Your task to perform on an android device: open app "Booking.com: Hotels and more" Image 0: 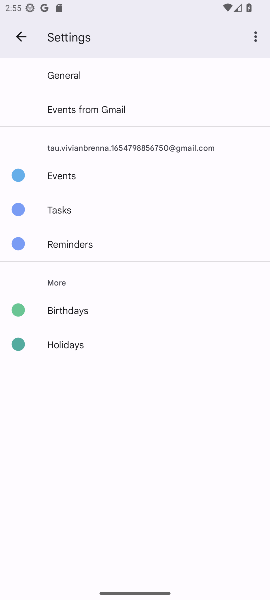
Step 0: press home button
Your task to perform on an android device: open app "Booking.com: Hotels and more" Image 1: 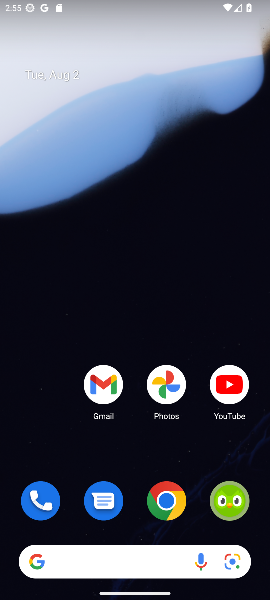
Step 1: drag from (129, 420) to (163, 0)
Your task to perform on an android device: open app "Booking.com: Hotels and more" Image 2: 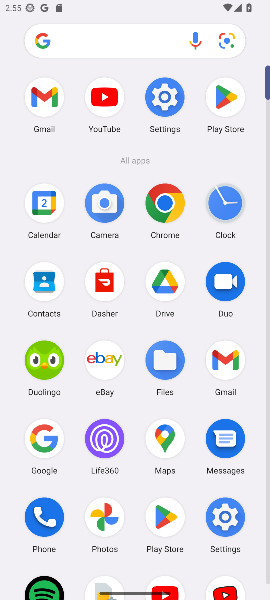
Step 2: click (219, 103)
Your task to perform on an android device: open app "Booking.com: Hotels and more" Image 3: 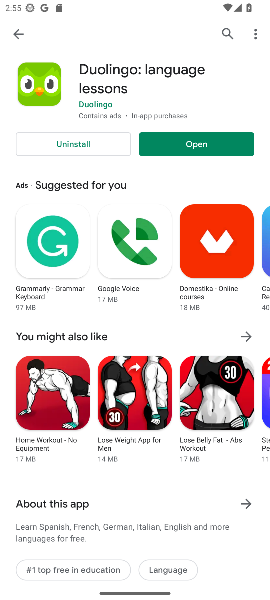
Step 3: click (227, 37)
Your task to perform on an android device: open app "Booking.com: Hotels and more" Image 4: 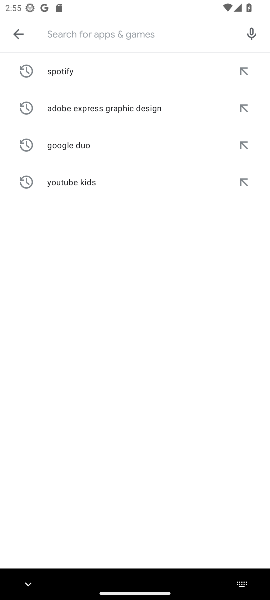
Step 4: type "Booking.com: Hotels and more"
Your task to perform on an android device: open app "Booking.com: Hotels and more" Image 5: 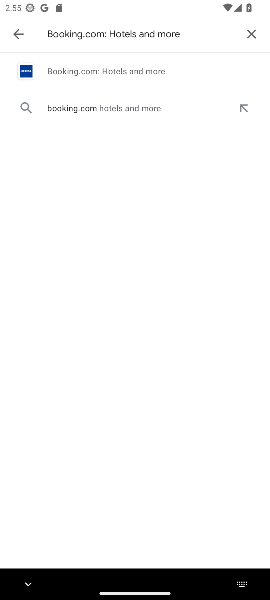
Step 5: click (72, 79)
Your task to perform on an android device: open app "Booking.com: Hotels and more" Image 6: 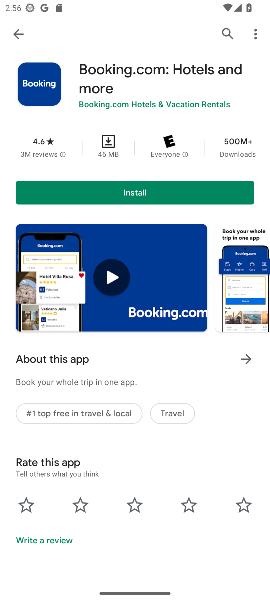
Step 6: task complete